Your task to perform on an android device: turn vacation reply on in the gmail app Image 0: 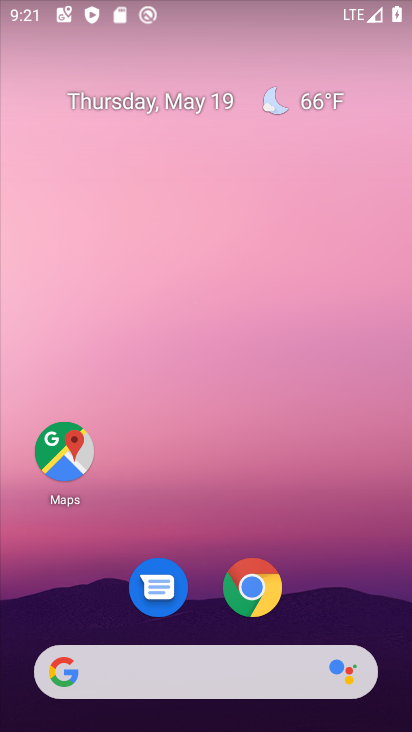
Step 0: drag from (187, 699) to (207, 142)
Your task to perform on an android device: turn vacation reply on in the gmail app Image 1: 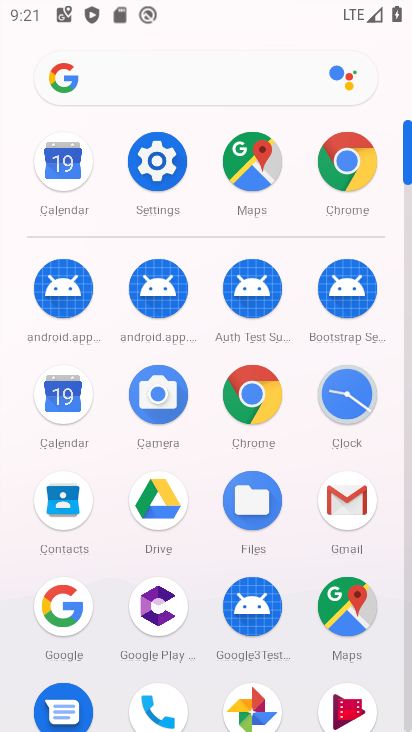
Step 1: click (355, 504)
Your task to perform on an android device: turn vacation reply on in the gmail app Image 2: 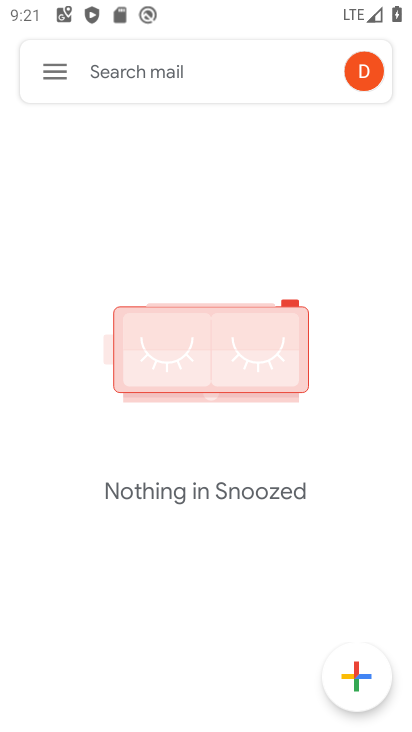
Step 2: click (69, 80)
Your task to perform on an android device: turn vacation reply on in the gmail app Image 3: 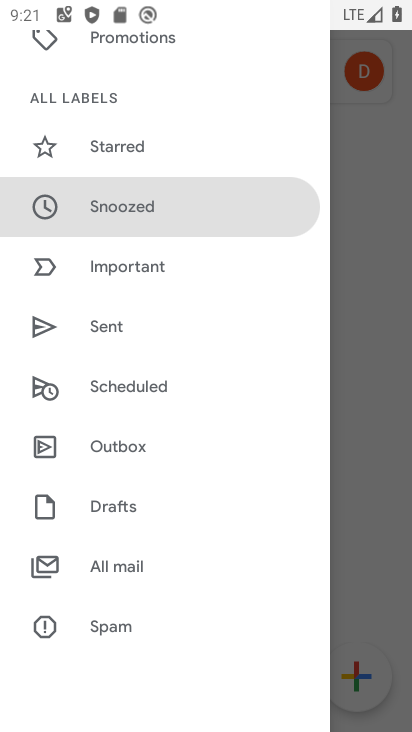
Step 3: drag from (141, 473) to (125, 244)
Your task to perform on an android device: turn vacation reply on in the gmail app Image 4: 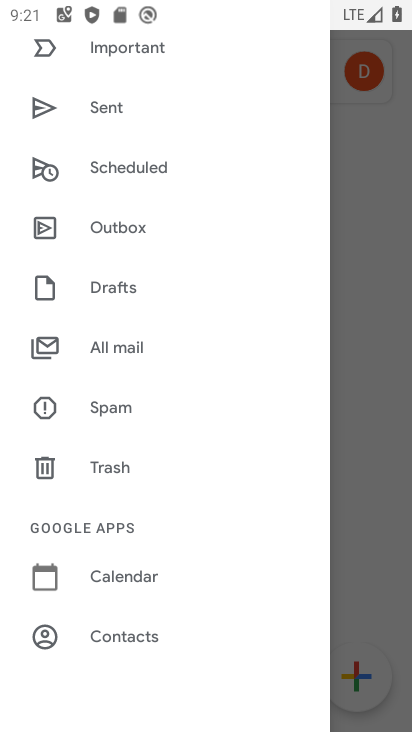
Step 4: drag from (167, 386) to (154, 234)
Your task to perform on an android device: turn vacation reply on in the gmail app Image 5: 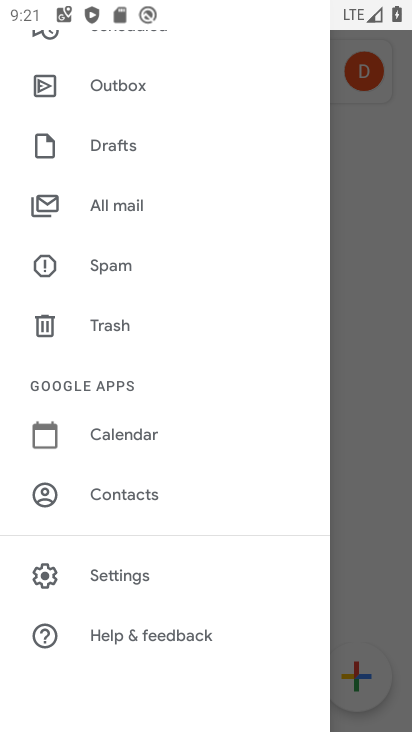
Step 5: click (143, 579)
Your task to perform on an android device: turn vacation reply on in the gmail app Image 6: 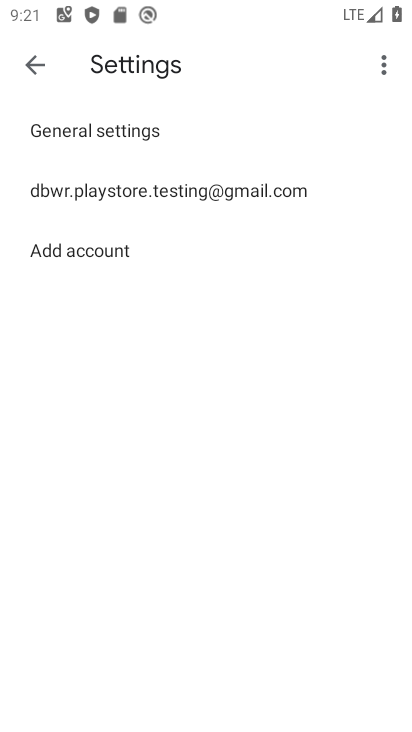
Step 6: click (182, 207)
Your task to perform on an android device: turn vacation reply on in the gmail app Image 7: 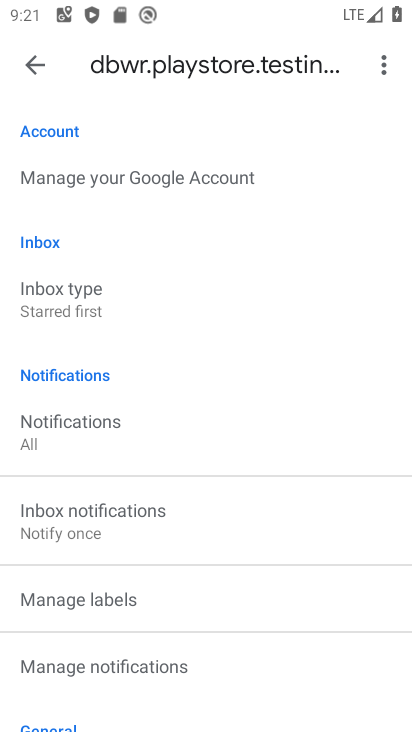
Step 7: drag from (194, 531) to (221, 217)
Your task to perform on an android device: turn vacation reply on in the gmail app Image 8: 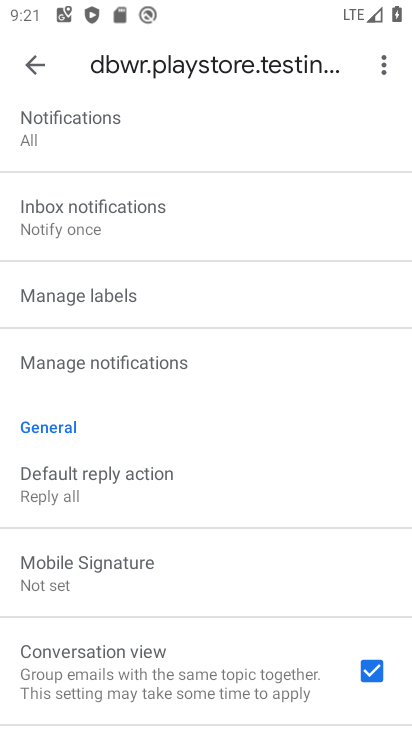
Step 8: drag from (162, 592) to (179, 329)
Your task to perform on an android device: turn vacation reply on in the gmail app Image 9: 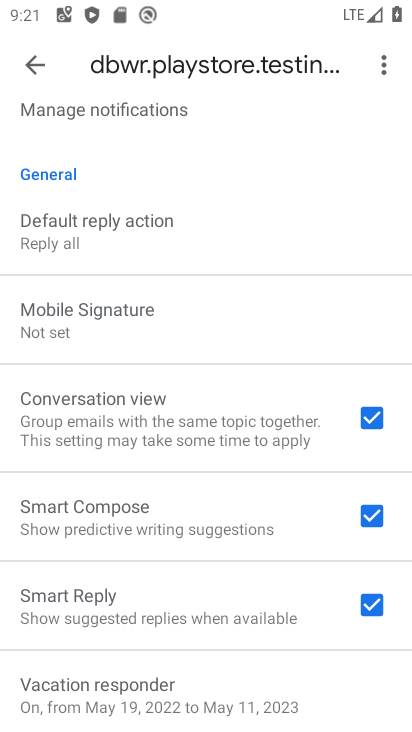
Step 9: click (249, 681)
Your task to perform on an android device: turn vacation reply on in the gmail app Image 10: 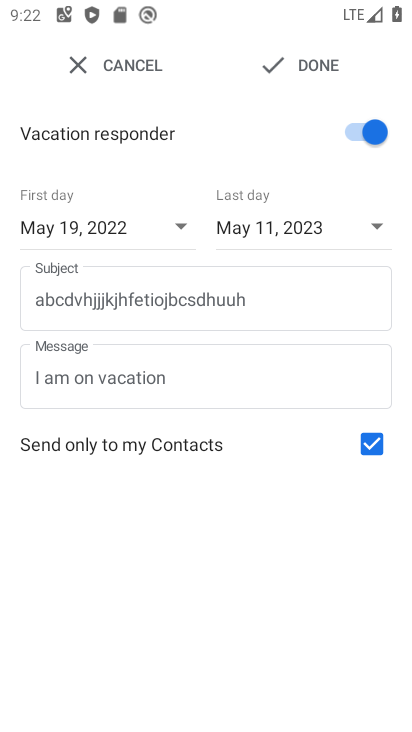
Step 10: task complete